Your task to perform on an android device: Open calendar and show me the fourth week of next month Image 0: 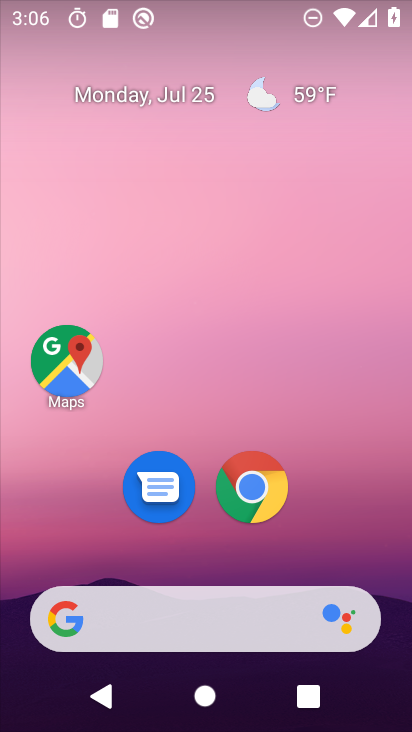
Step 0: drag from (165, 598) to (307, 3)
Your task to perform on an android device: Open calendar and show me the fourth week of next month Image 1: 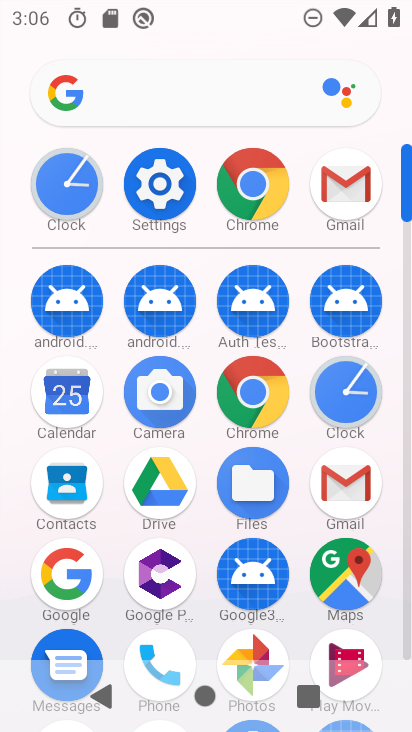
Step 1: click (69, 401)
Your task to perform on an android device: Open calendar and show me the fourth week of next month Image 2: 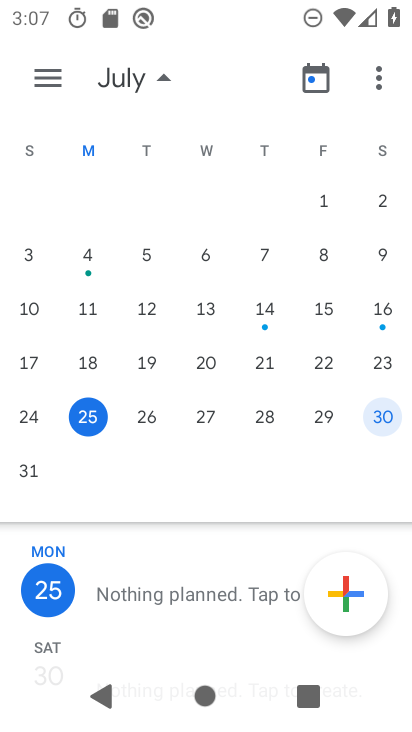
Step 2: drag from (391, 299) to (22, 306)
Your task to perform on an android device: Open calendar and show me the fourth week of next month Image 3: 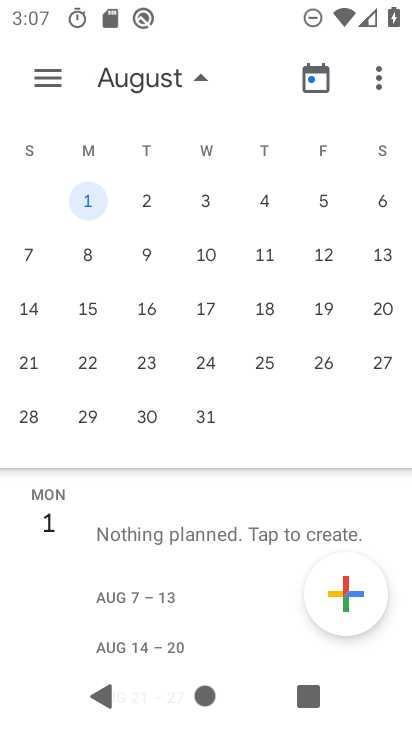
Step 3: click (78, 346)
Your task to perform on an android device: Open calendar and show me the fourth week of next month Image 4: 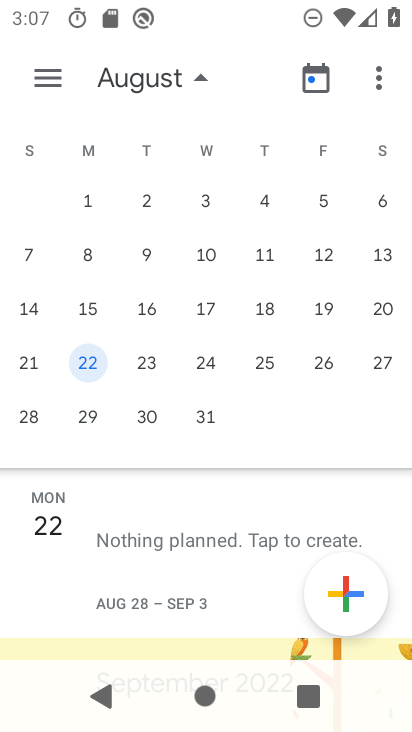
Step 4: task complete